Your task to perform on an android device: Open internet settings Image 0: 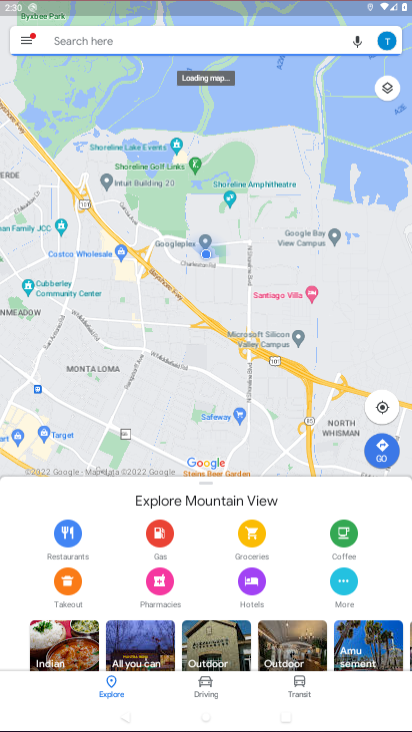
Step 0: click (117, 672)
Your task to perform on an android device: Open internet settings Image 1: 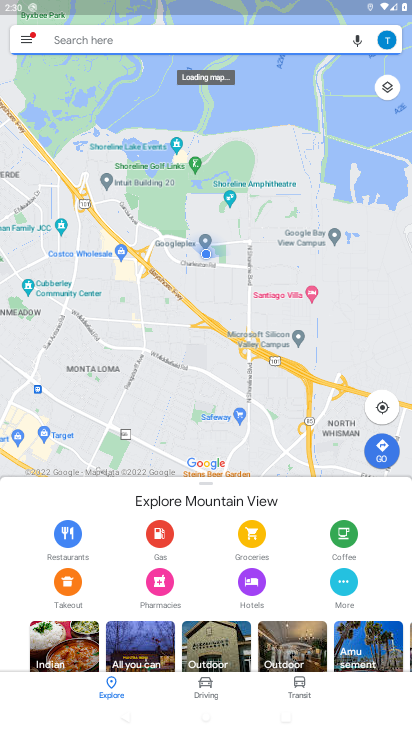
Step 1: press home button
Your task to perform on an android device: Open internet settings Image 2: 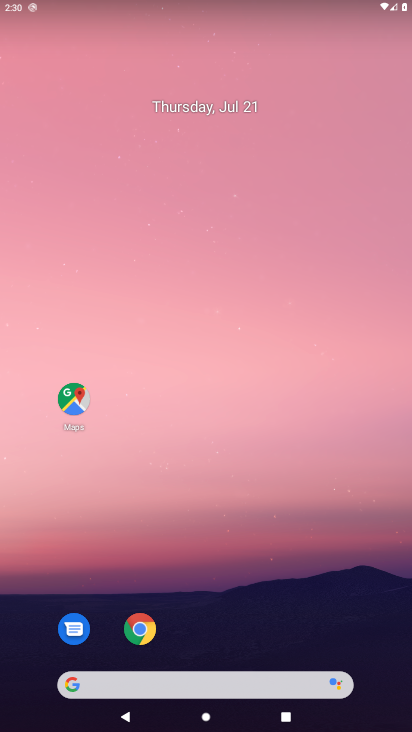
Step 2: drag from (45, 714) to (255, 169)
Your task to perform on an android device: Open internet settings Image 3: 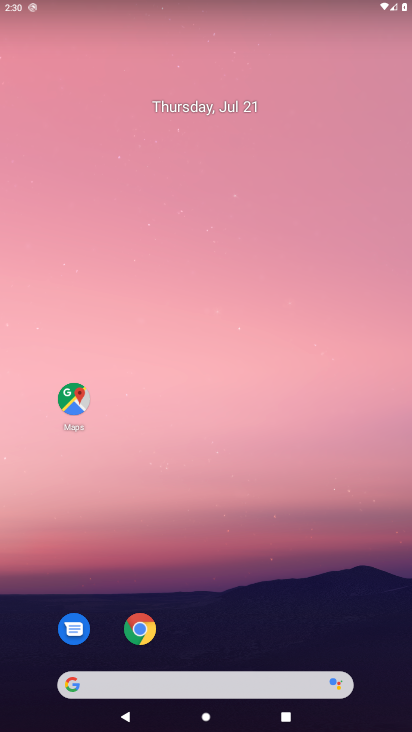
Step 3: drag from (28, 700) to (237, 142)
Your task to perform on an android device: Open internet settings Image 4: 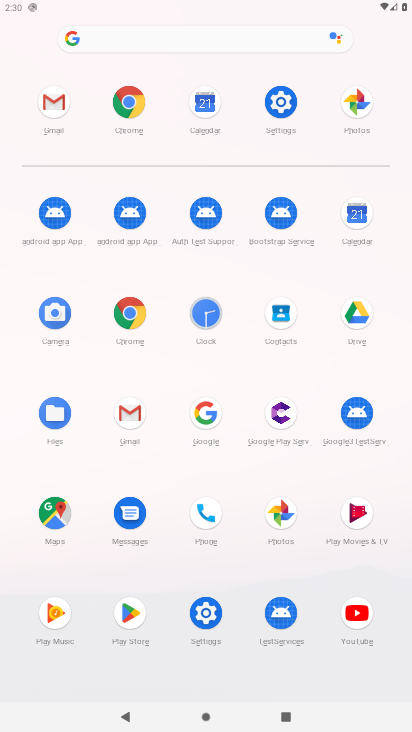
Step 4: click (203, 624)
Your task to perform on an android device: Open internet settings Image 5: 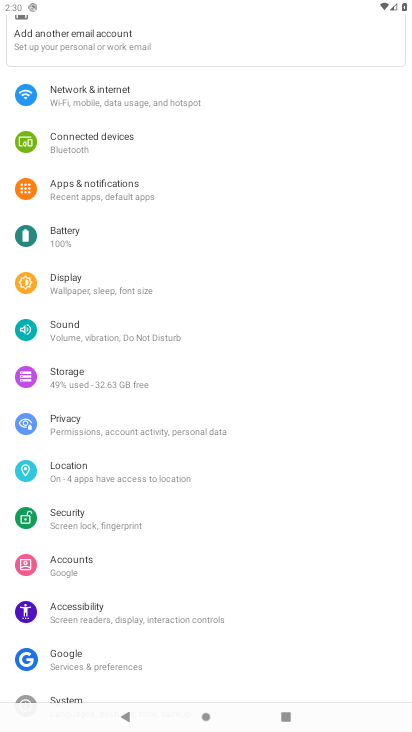
Step 5: click (119, 91)
Your task to perform on an android device: Open internet settings Image 6: 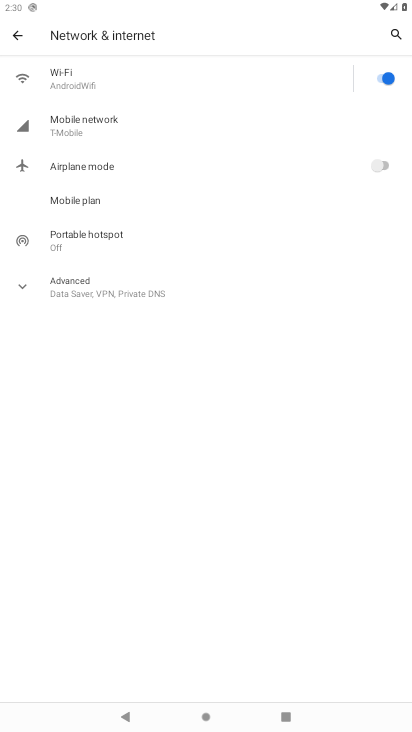
Step 6: task complete